Your task to perform on an android device: turn off notifications settings in the gmail app Image 0: 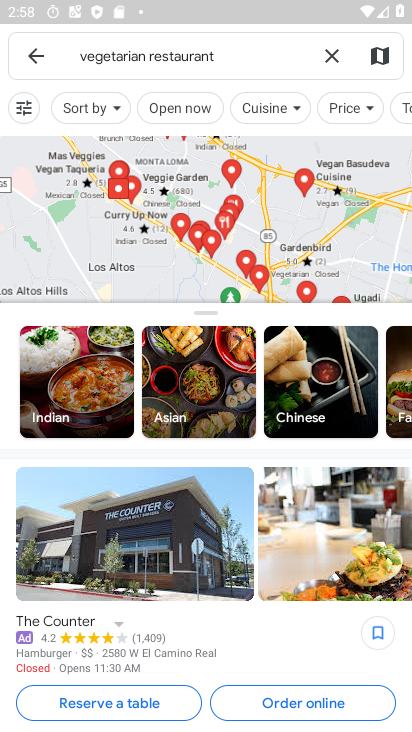
Step 0: press home button
Your task to perform on an android device: turn off notifications settings in the gmail app Image 1: 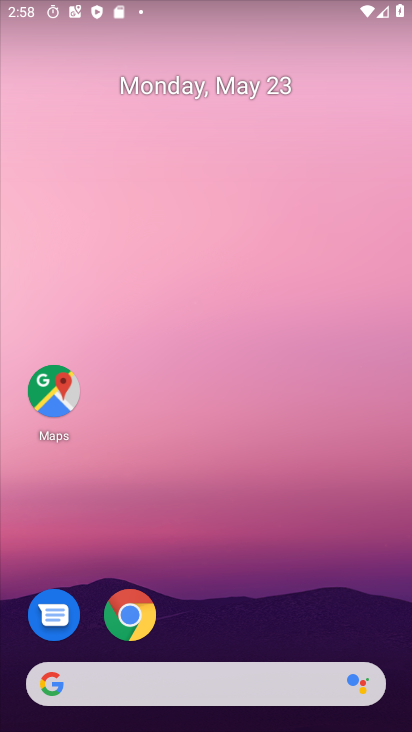
Step 1: drag from (257, 648) to (319, 27)
Your task to perform on an android device: turn off notifications settings in the gmail app Image 2: 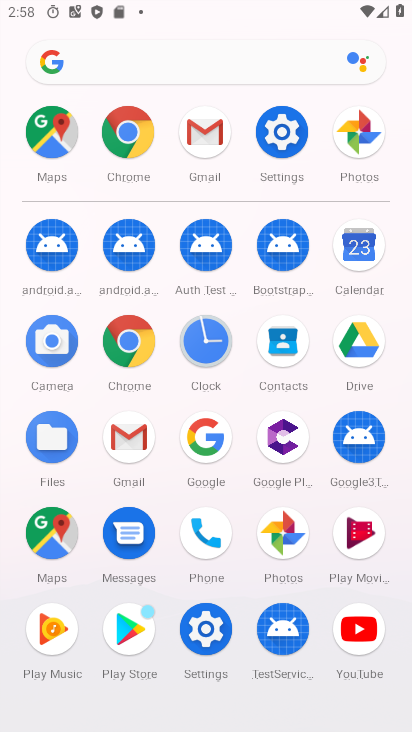
Step 2: click (202, 131)
Your task to perform on an android device: turn off notifications settings in the gmail app Image 3: 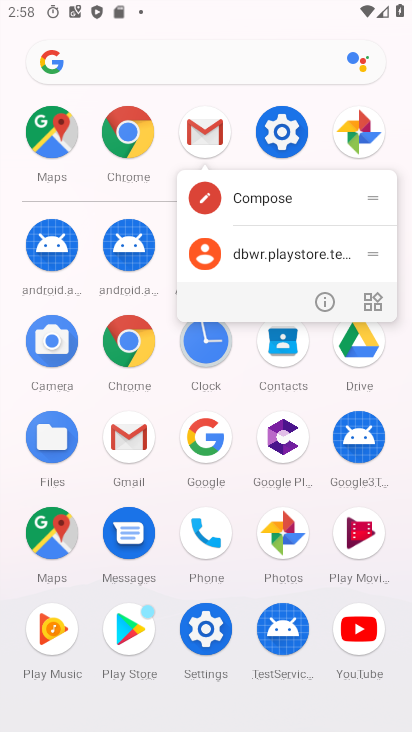
Step 3: click (201, 131)
Your task to perform on an android device: turn off notifications settings in the gmail app Image 4: 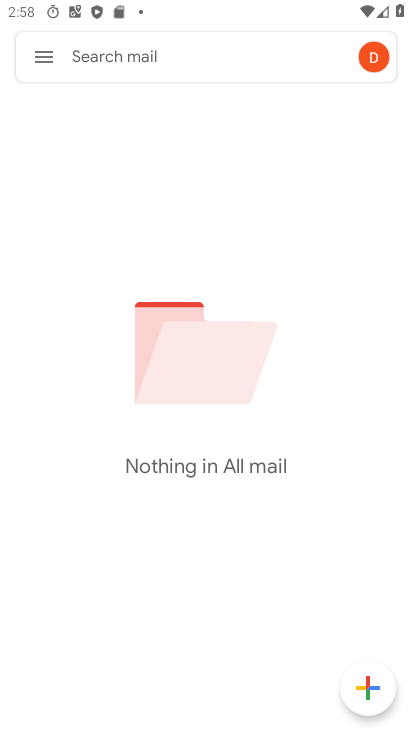
Step 4: click (40, 52)
Your task to perform on an android device: turn off notifications settings in the gmail app Image 5: 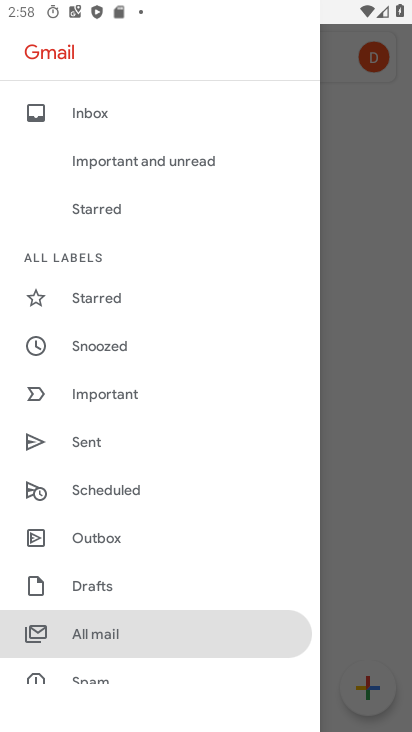
Step 5: drag from (202, 605) to (206, 108)
Your task to perform on an android device: turn off notifications settings in the gmail app Image 6: 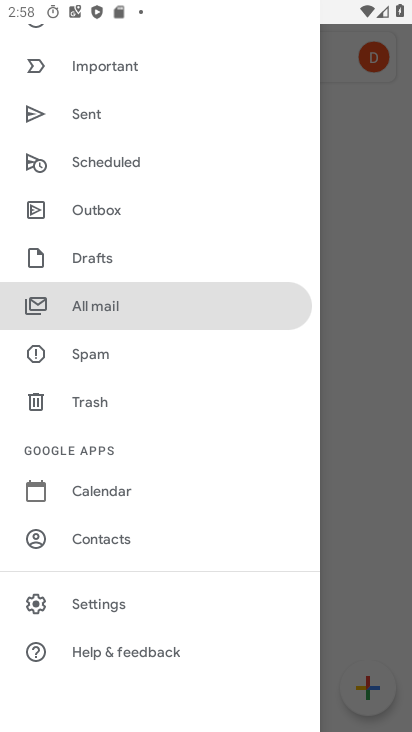
Step 6: click (98, 604)
Your task to perform on an android device: turn off notifications settings in the gmail app Image 7: 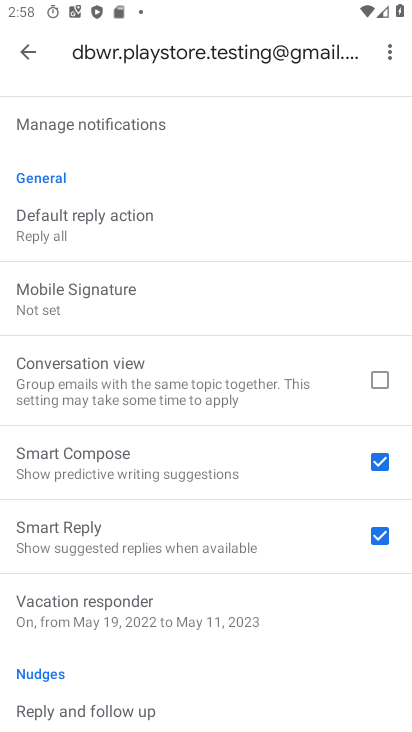
Step 7: click (32, 60)
Your task to perform on an android device: turn off notifications settings in the gmail app Image 8: 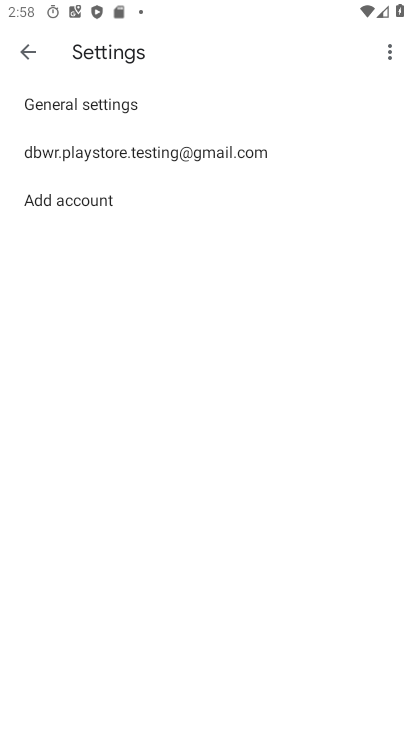
Step 8: click (56, 108)
Your task to perform on an android device: turn off notifications settings in the gmail app Image 9: 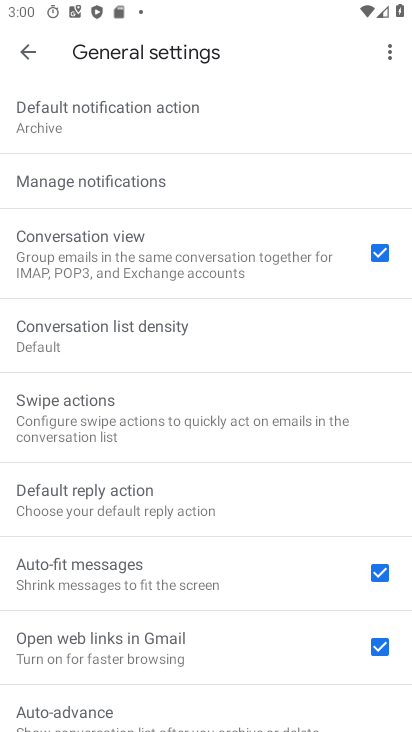
Step 9: click (62, 187)
Your task to perform on an android device: turn off notifications settings in the gmail app Image 10: 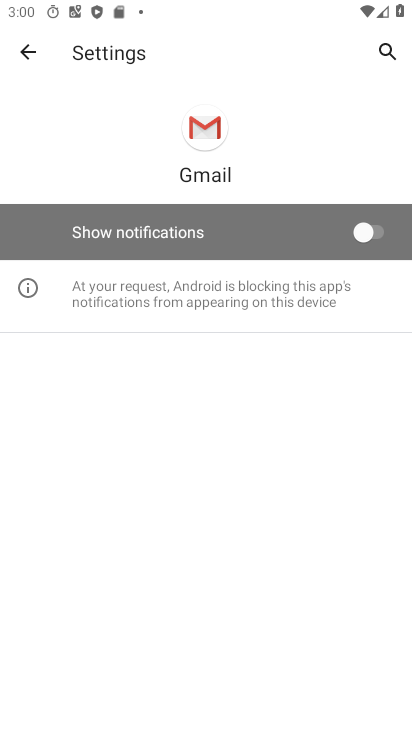
Step 10: task complete